Your task to perform on an android device: Open the stopwatch Image 0: 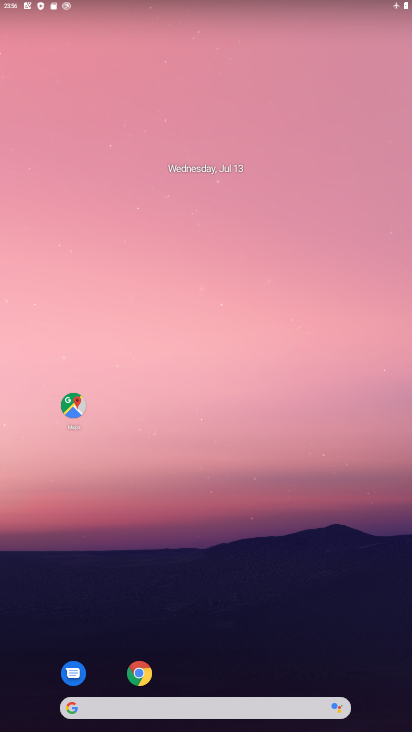
Step 0: drag from (212, 640) to (158, 73)
Your task to perform on an android device: Open the stopwatch Image 1: 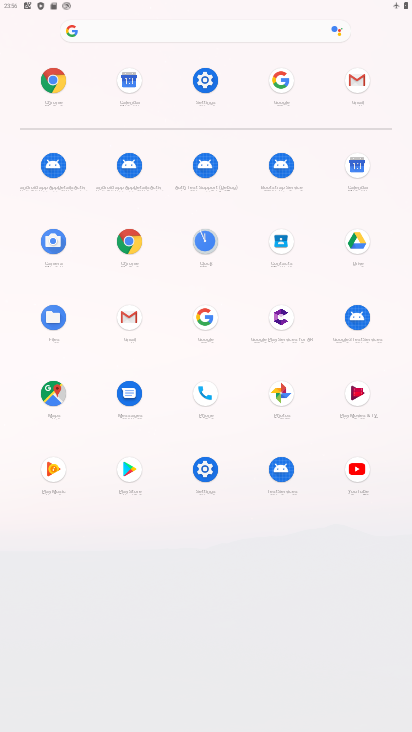
Step 1: click (208, 243)
Your task to perform on an android device: Open the stopwatch Image 2: 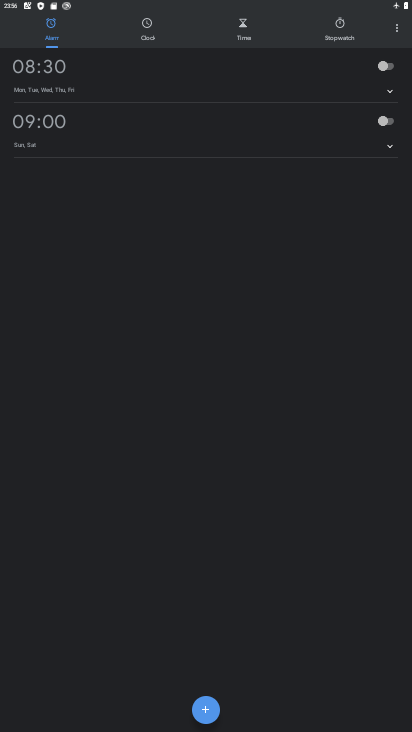
Step 2: click (331, 16)
Your task to perform on an android device: Open the stopwatch Image 3: 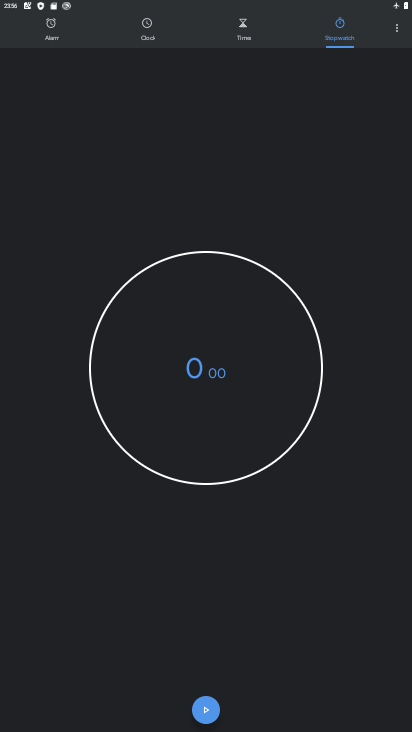
Step 3: task complete